Your task to perform on an android device: Open Google Maps Image 0: 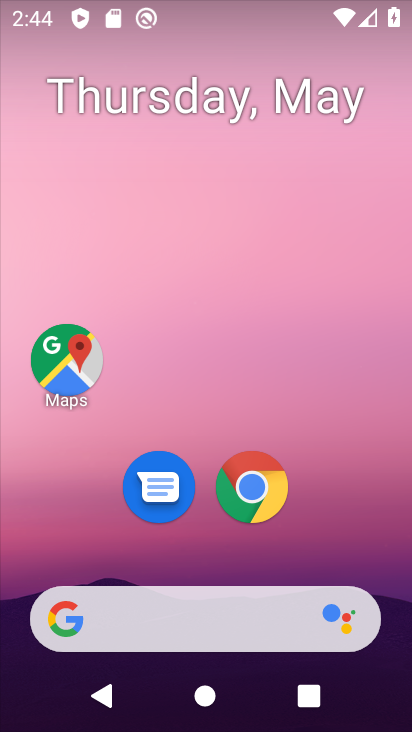
Step 0: drag from (171, 595) to (245, 252)
Your task to perform on an android device: Open Google Maps Image 1: 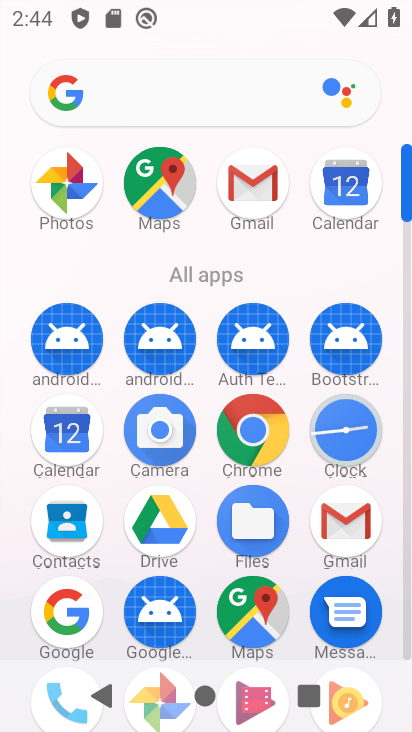
Step 1: click (178, 189)
Your task to perform on an android device: Open Google Maps Image 2: 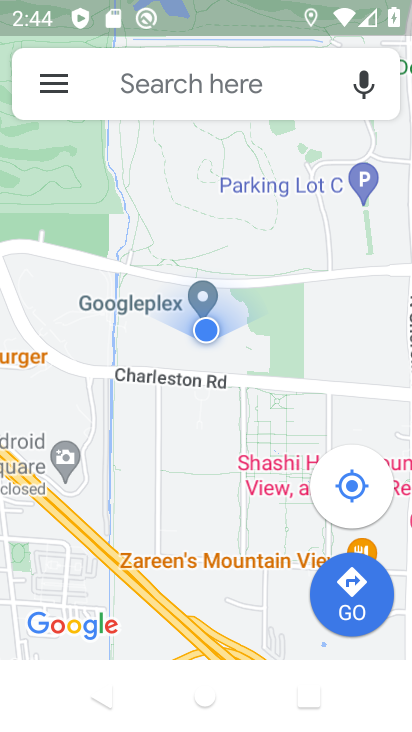
Step 2: task complete